Your task to perform on an android device: Show me popular videos on Youtube Image 0: 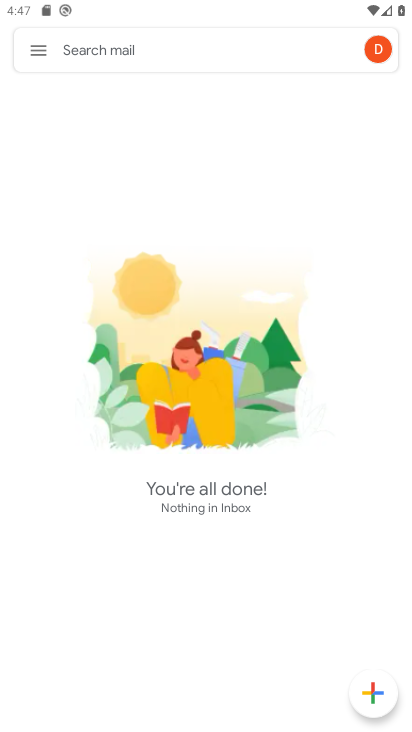
Step 0: press back button
Your task to perform on an android device: Show me popular videos on Youtube Image 1: 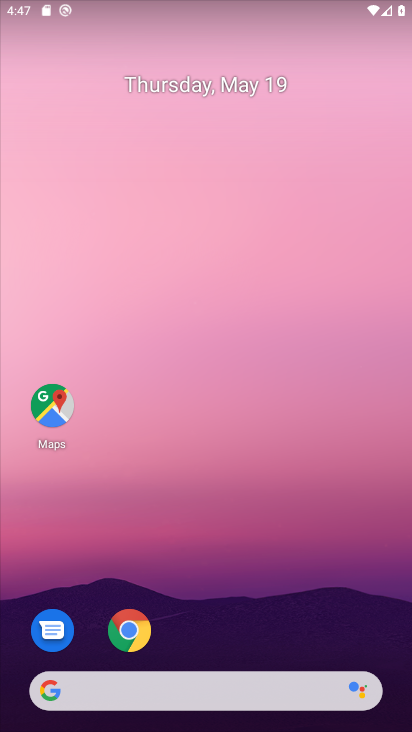
Step 1: click (225, 74)
Your task to perform on an android device: Show me popular videos on Youtube Image 2: 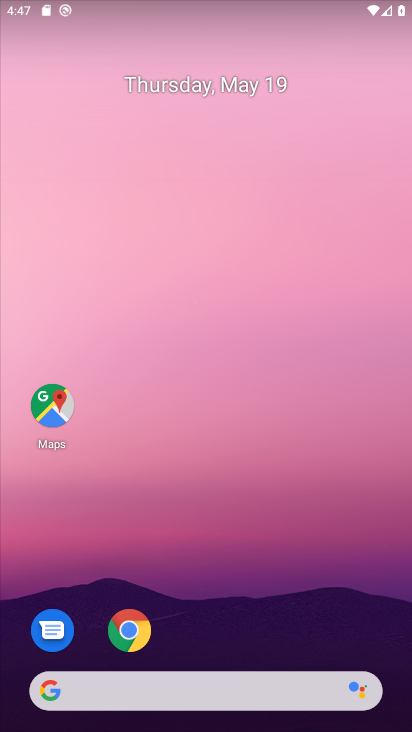
Step 2: drag from (258, 564) to (252, 102)
Your task to perform on an android device: Show me popular videos on Youtube Image 3: 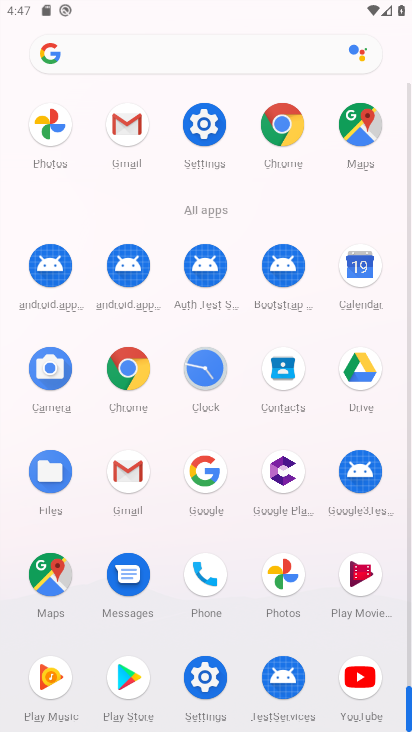
Step 3: drag from (12, 590) to (13, 214)
Your task to perform on an android device: Show me popular videos on Youtube Image 4: 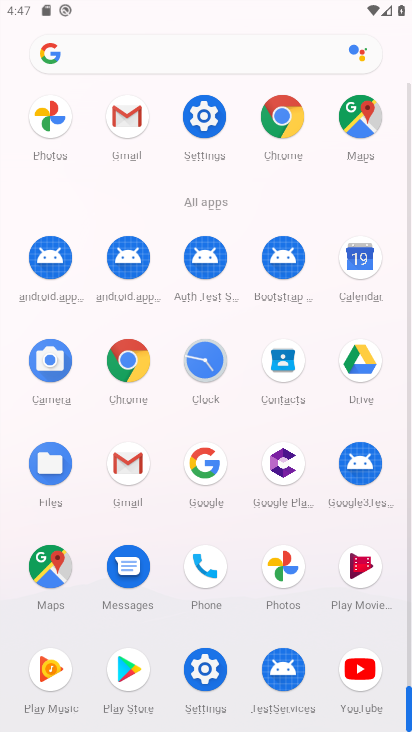
Step 4: click (357, 665)
Your task to perform on an android device: Show me popular videos on Youtube Image 5: 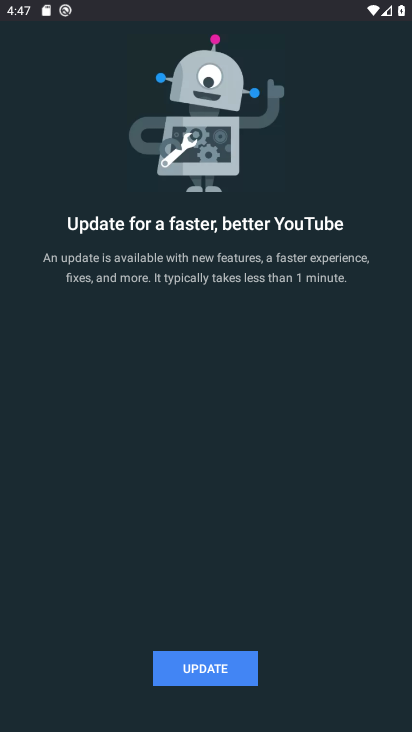
Step 5: click (229, 668)
Your task to perform on an android device: Show me popular videos on Youtube Image 6: 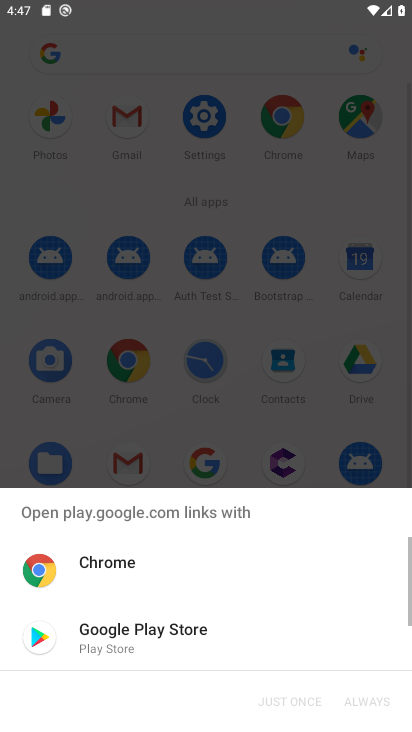
Step 6: click (125, 624)
Your task to perform on an android device: Show me popular videos on Youtube Image 7: 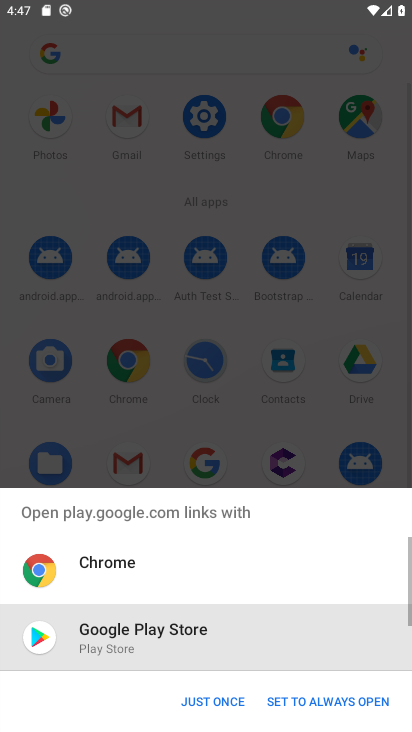
Step 7: click (186, 701)
Your task to perform on an android device: Show me popular videos on Youtube Image 8: 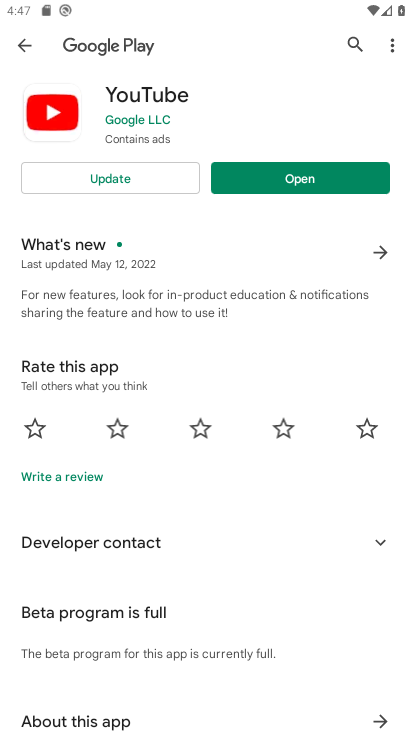
Step 8: click (99, 174)
Your task to perform on an android device: Show me popular videos on Youtube Image 9: 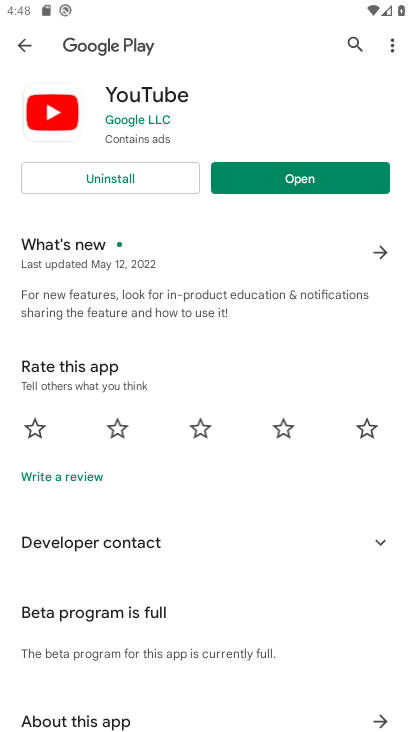
Step 9: click (246, 176)
Your task to perform on an android device: Show me popular videos on Youtube Image 10: 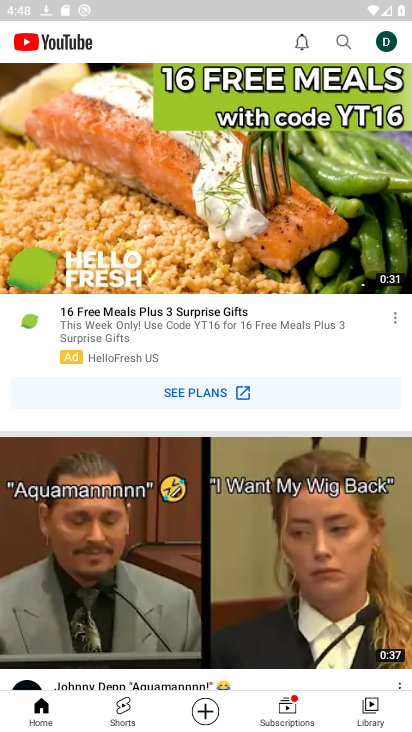
Step 10: click (29, 79)
Your task to perform on an android device: Show me popular videos on Youtube Image 11: 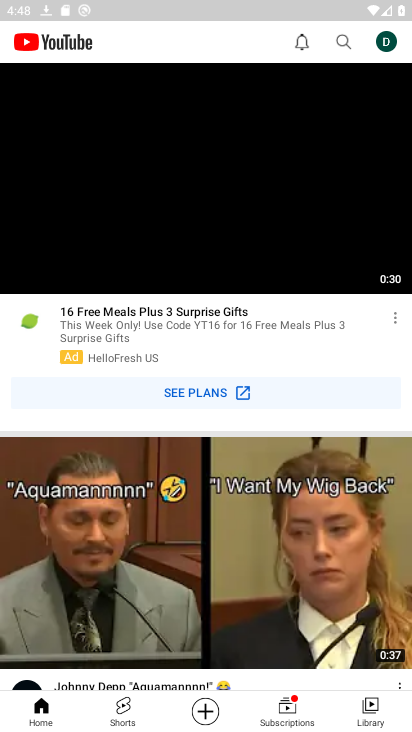
Step 11: drag from (43, 159) to (45, 508)
Your task to perform on an android device: Show me popular videos on Youtube Image 12: 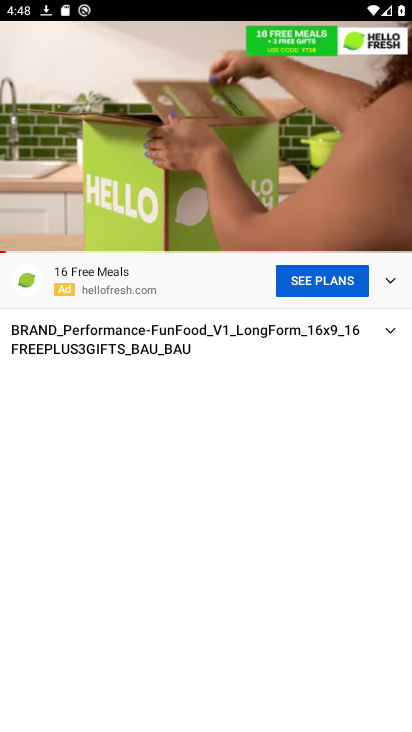
Step 12: press back button
Your task to perform on an android device: Show me popular videos on Youtube Image 13: 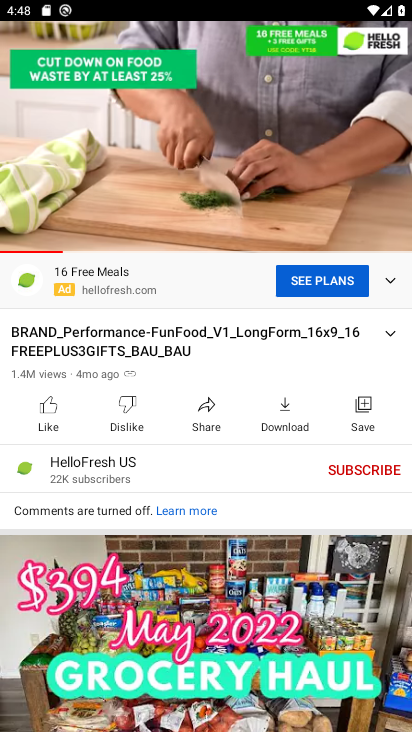
Step 13: drag from (132, 139) to (120, 539)
Your task to perform on an android device: Show me popular videos on Youtube Image 14: 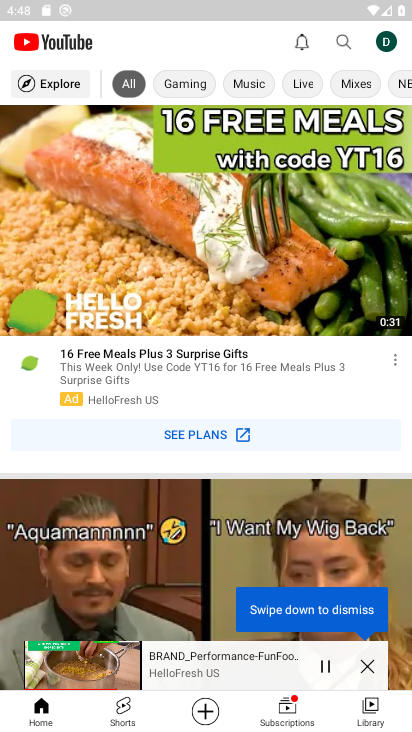
Step 14: click (45, 78)
Your task to perform on an android device: Show me popular videos on Youtube Image 15: 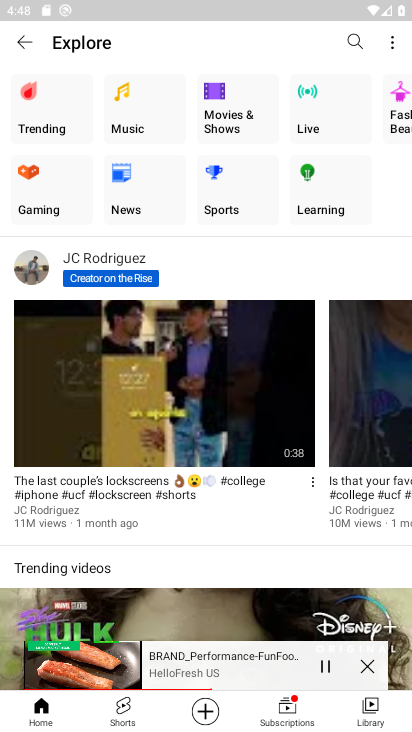
Step 15: click (34, 100)
Your task to perform on an android device: Show me popular videos on Youtube Image 16: 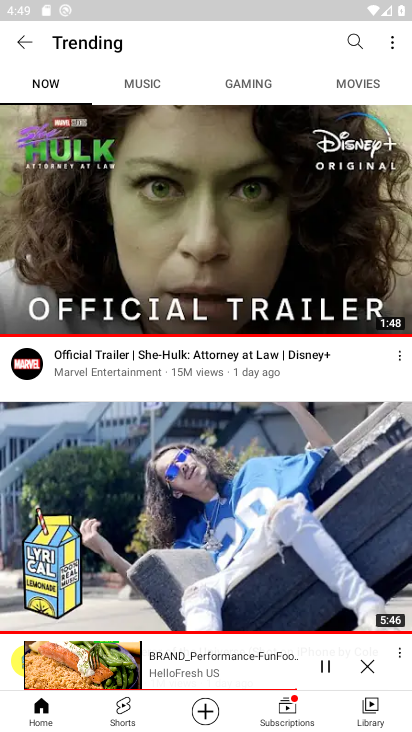
Step 16: click (127, 242)
Your task to perform on an android device: Show me popular videos on Youtube Image 17: 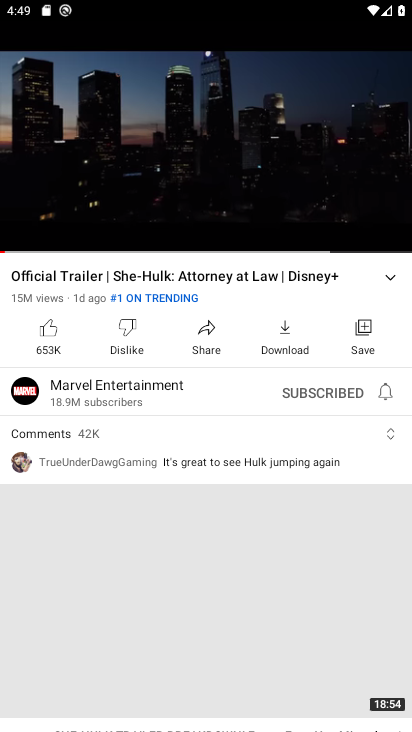
Step 17: task complete